Your task to perform on an android device: toggle show notifications on the lock screen Image 0: 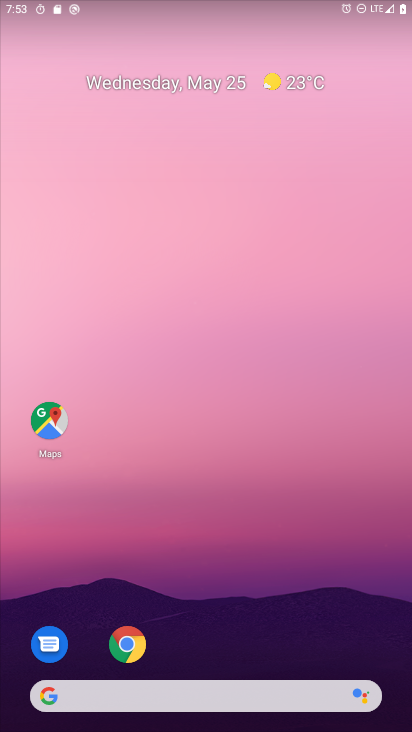
Step 0: drag from (301, 633) to (233, 17)
Your task to perform on an android device: toggle show notifications on the lock screen Image 1: 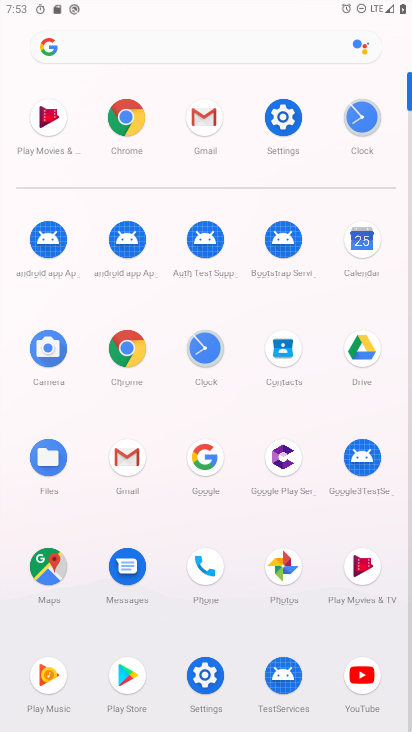
Step 1: click (280, 135)
Your task to perform on an android device: toggle show notifications on the lock screen Image 2: 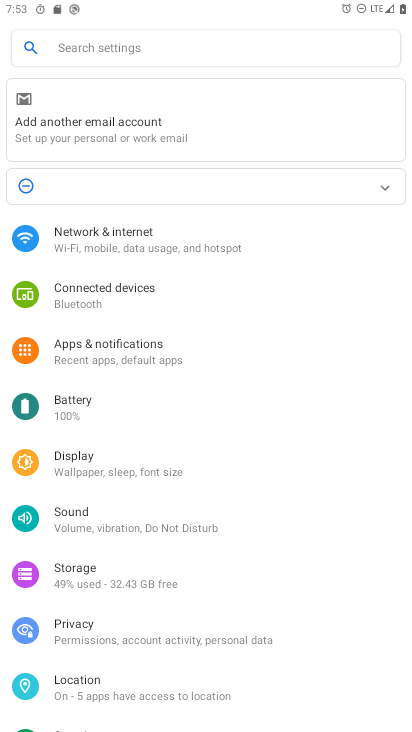
Step 2: click (168, 372)
Your task to perform on an android device: toggle show notifications on the lock screen Image 3: 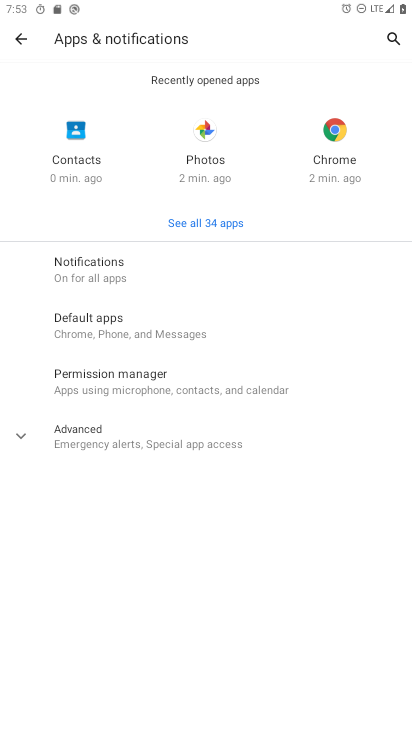
Step 3: click (155, 283)
Your task to perform on an android device: toggle show notifications on the lock screen Image 4: 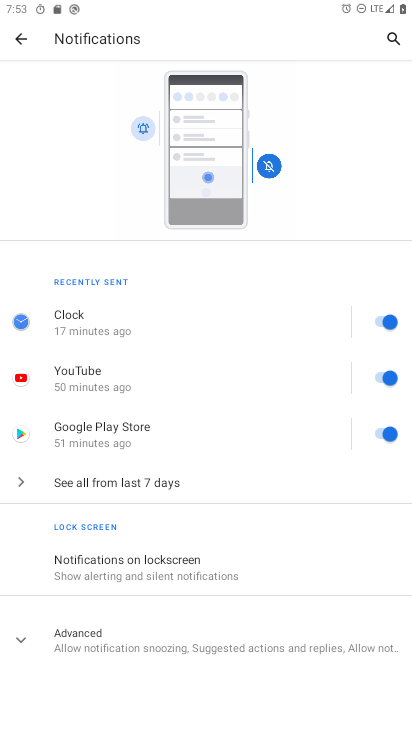
Step 4: click (131, 639)
Your task to perform on an android device: toggle show notifications on the lock screen Image 5: 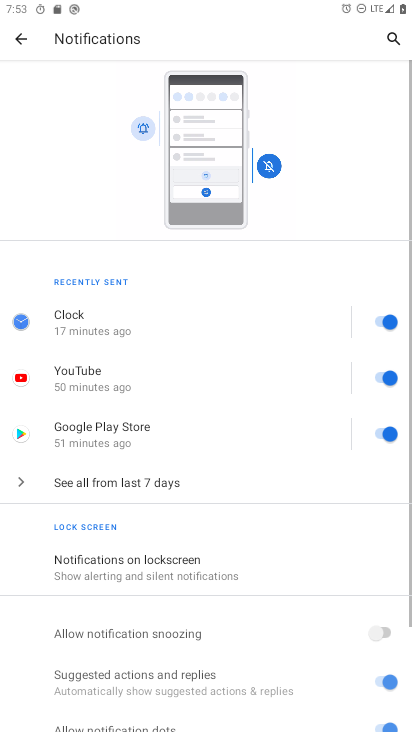
Step 5: drag from (139, 667) to (189, 423)
Your task to perform on an android device: toggle show notifications on the lock screen Image 6: 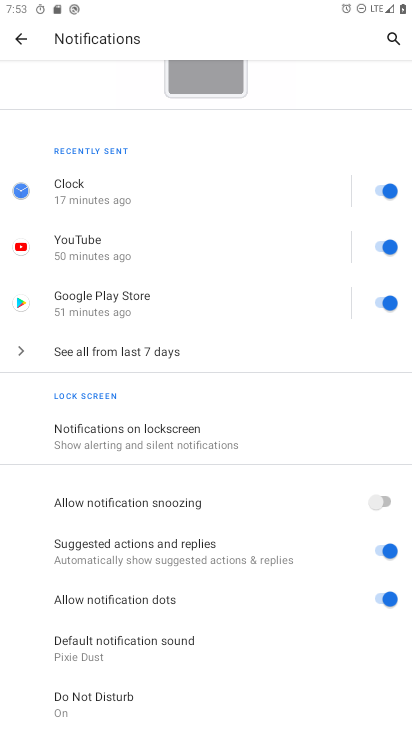
Step 6: click (105, 423)
Your task to perform on an android device: toggle show notifications on the lock screen Image 7: 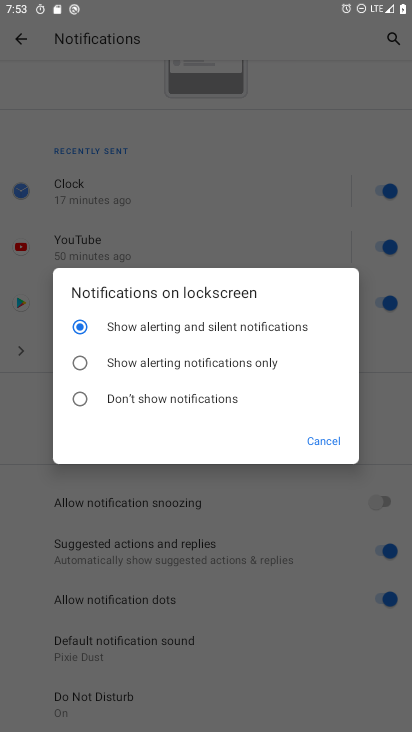
Step 7: click (78, 401)
Your task to perform on an android device: toggle show notifications on the lock screen Image 8: 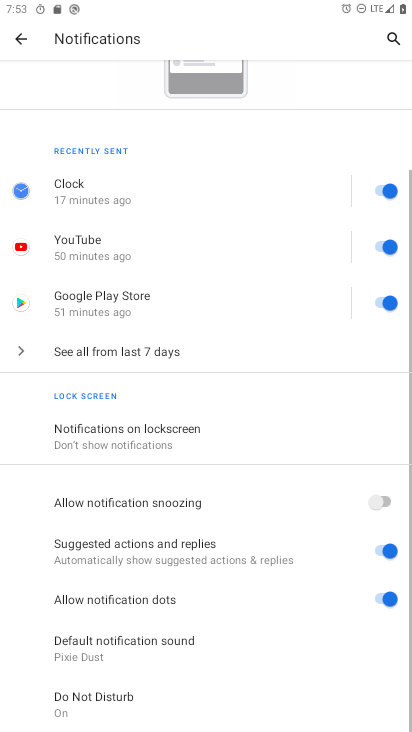
Step 8: task complete